Your task to perform on an android device: View the shopping cart on ebay.com. Search for "apple airpods" on ebay.com, select the first entry, and add it to the cart. Image 0: 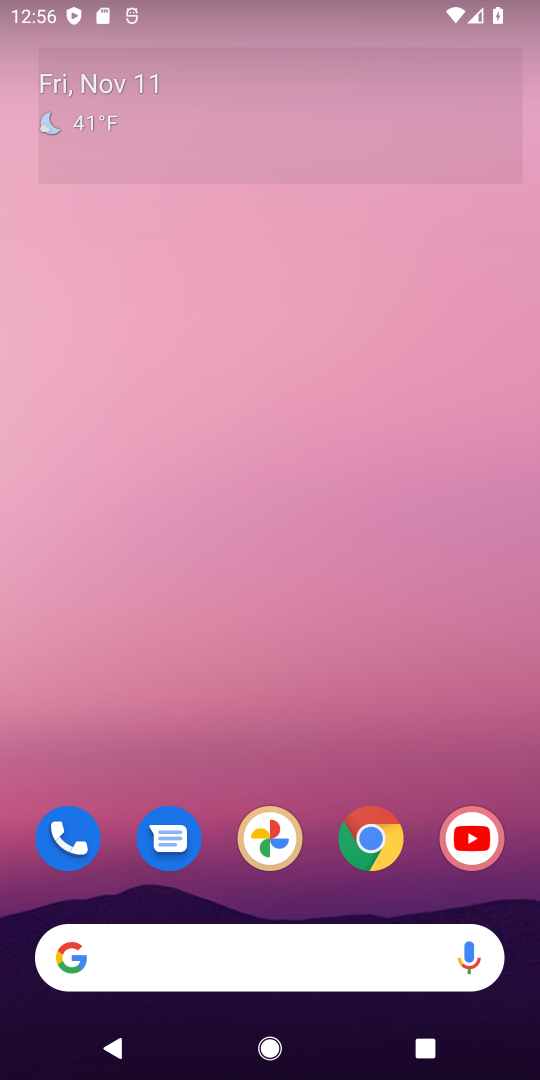
Step 0: click (288, 946)
Your task to perform on an android device: View the shopping cart on ebay.com. Search for "apple airpods" on ebay.com, select the first entry, and add it to the cart. Image 1: 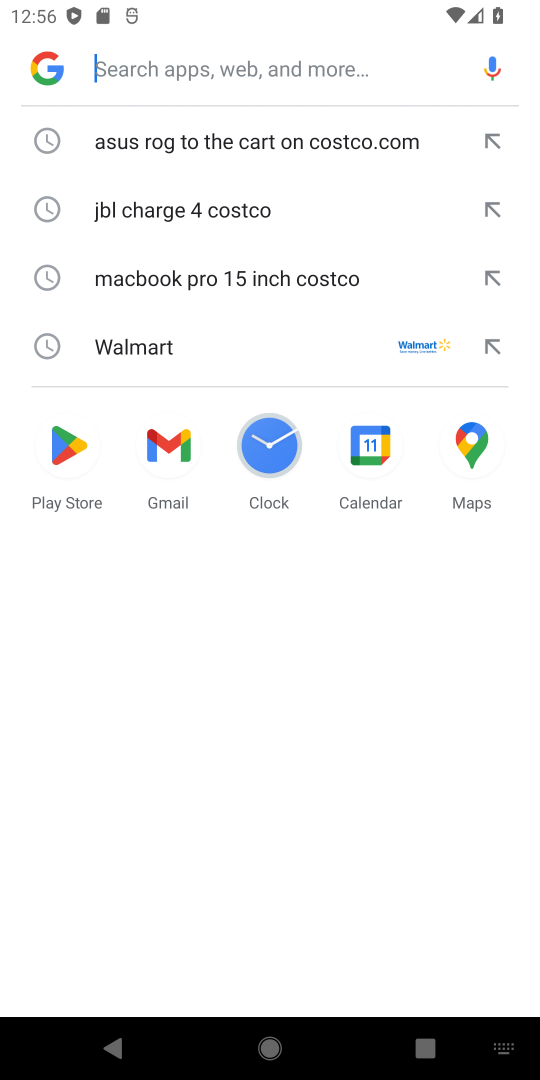
Step 1: type "apple airpods on ebay"
Your task to perform on an android device: View the shopping cart on ebay.com. Search for "apple airpods" on ebay.com, select the first entry, and add it to the cart. Image 2: 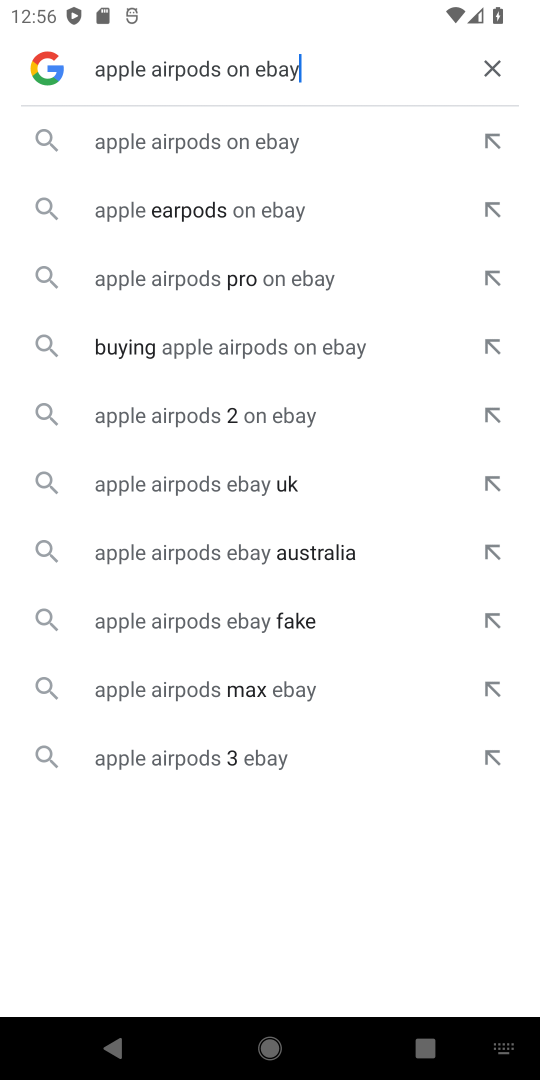
Step 2: click (269, 138)
Your task to perform on an android device: View the shopping cart on ebay.com. Search for "apple airpods" on ebay.com, select the first entry, and add it to the cart. Image 3: 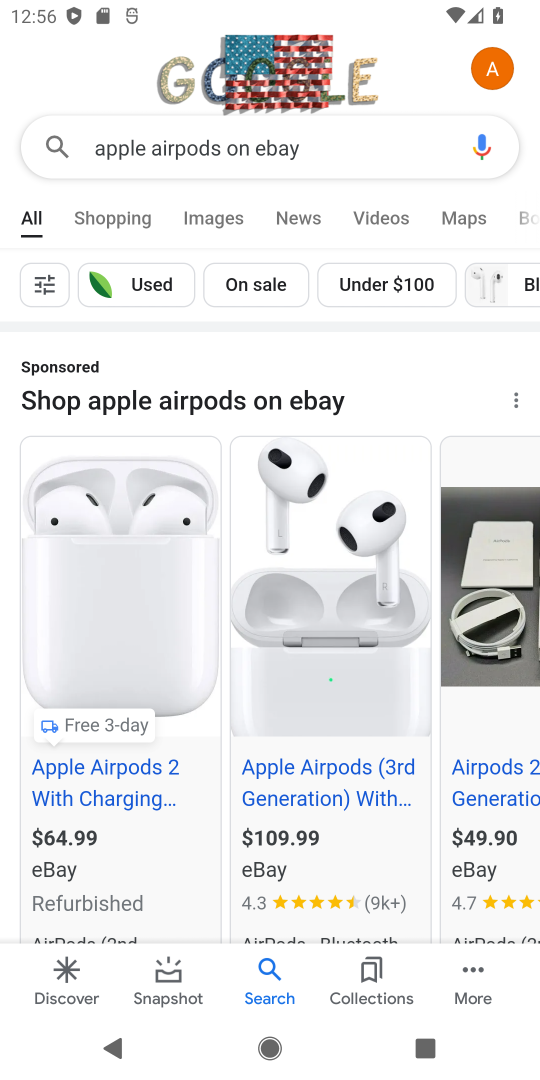
Step 3: click (93, 773)
Your task to perform on an android device: View the shopping cart on ebay.com. Search for "apple airpods" on ebay.com, select the first entry, and add it to the cart. Image 4: 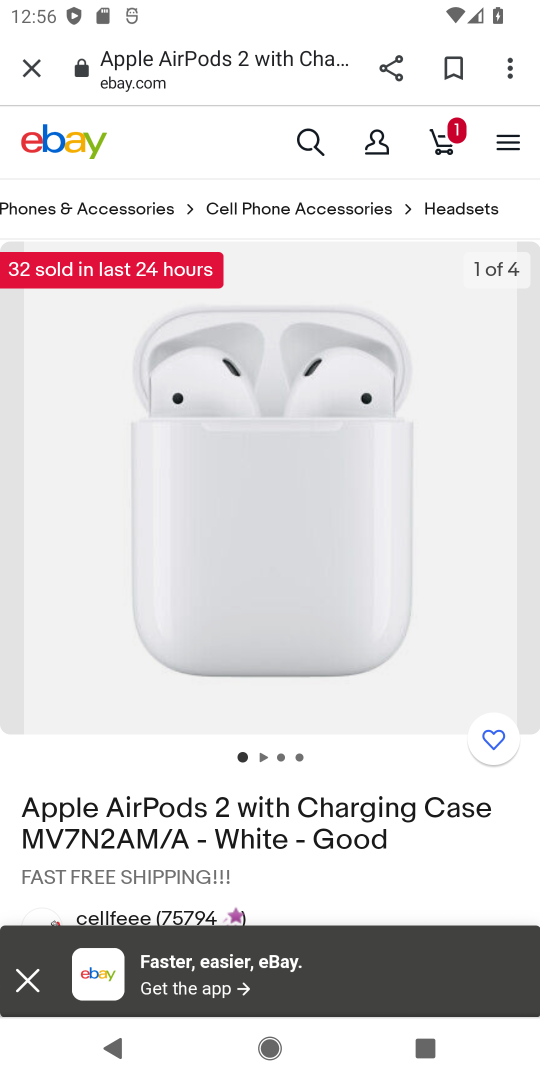
Step 4: drag from (161, 889) to (464, 142)
Your task to perform on an android device: View the shopping cart on ebay.com. Search for "apple airpods" on ebay.com, select the first entry, and add it to the cart. Image 5: 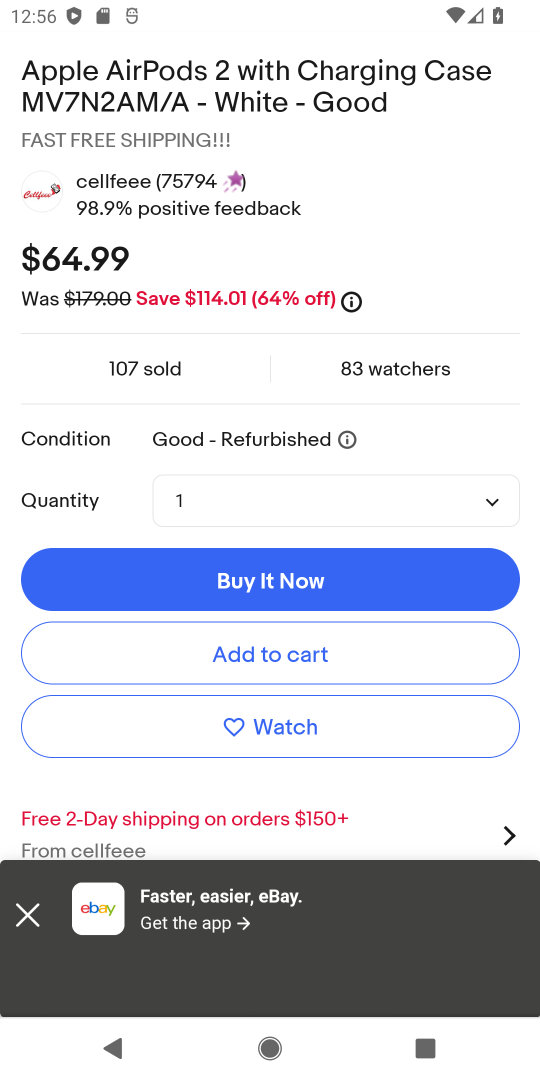
Step 5: click (261, 645)
Your task to perform on an android device: View the shopping cart on ebay.com. Search for "apple airpods" on ebay.com, select the first entry, and add it to the cart. Image 6: 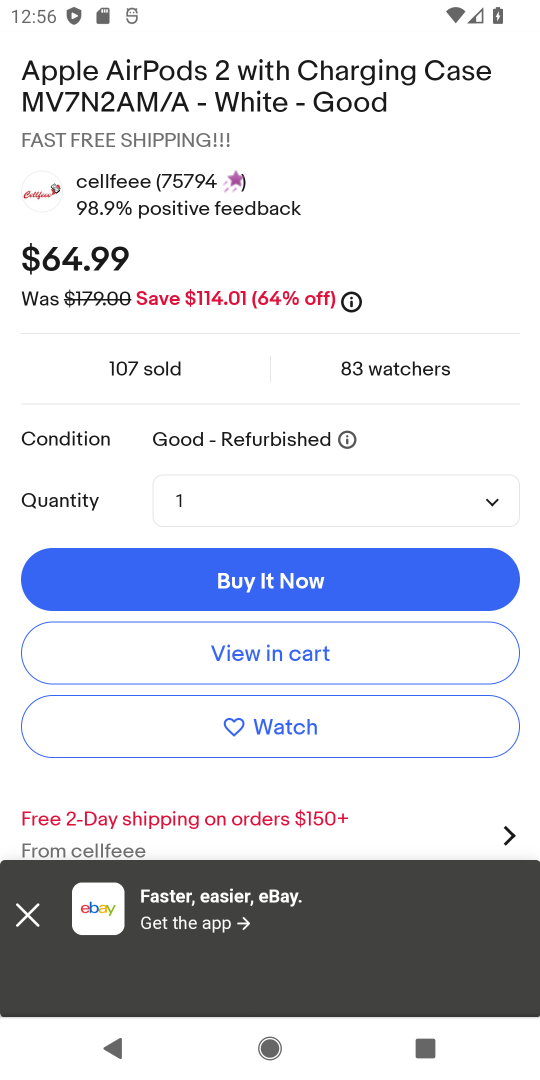
Step 6: task complete